Your task to perform on an android device: Open Google Chrome Image 0: 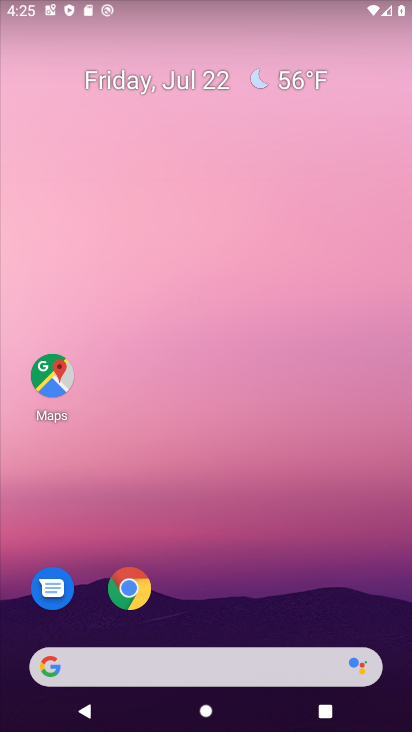
Step 0: click (151, 594)
Your task to perform on an android device: Open Google Chrome Image 1: 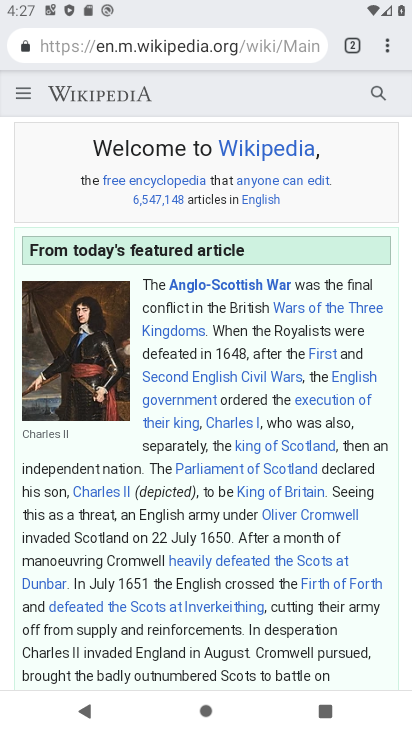
Step 1: task complete